Your task to perform on an android device: Open ESPN.com Image 0: 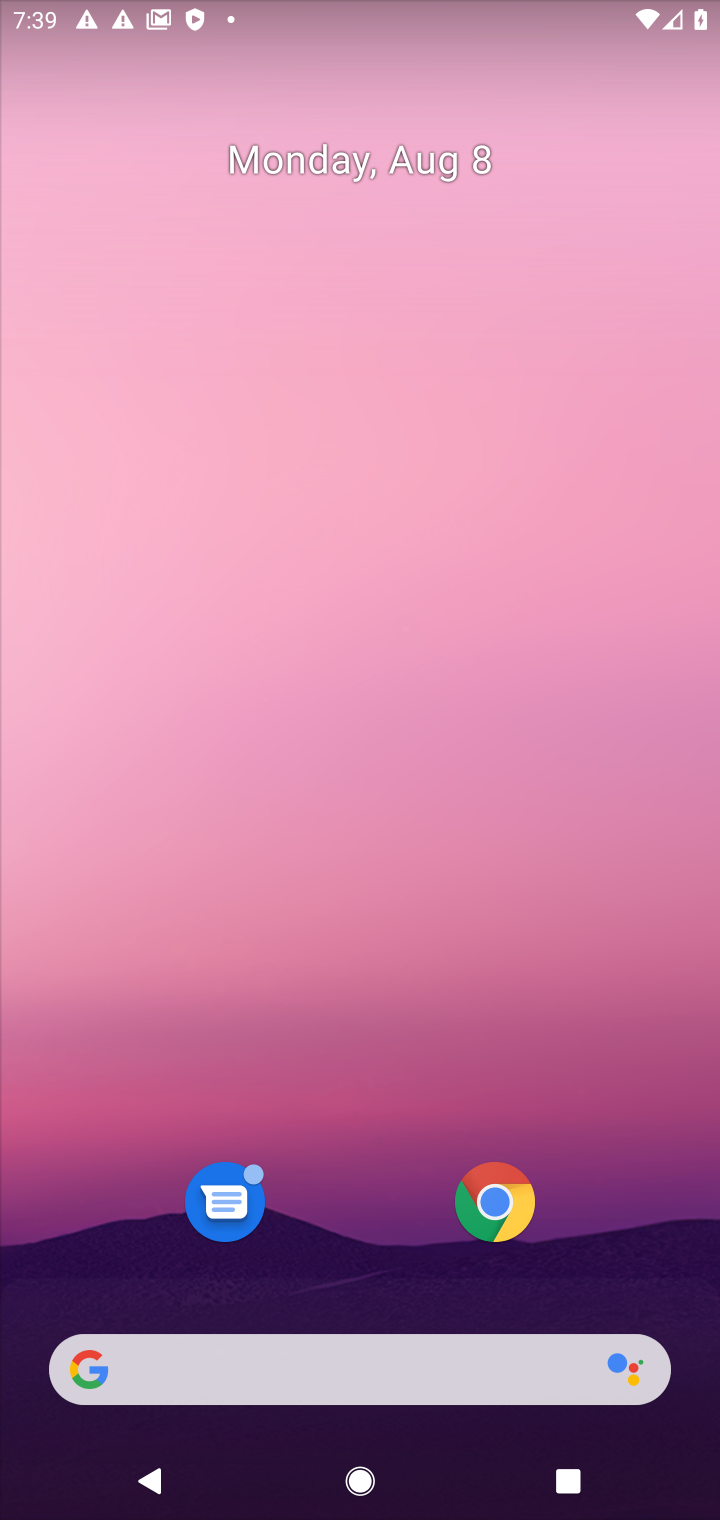
Step 0: drag from (380, 923) to (460, 5)
Your task to perform on an android device: Open ESPN.com Image 1: 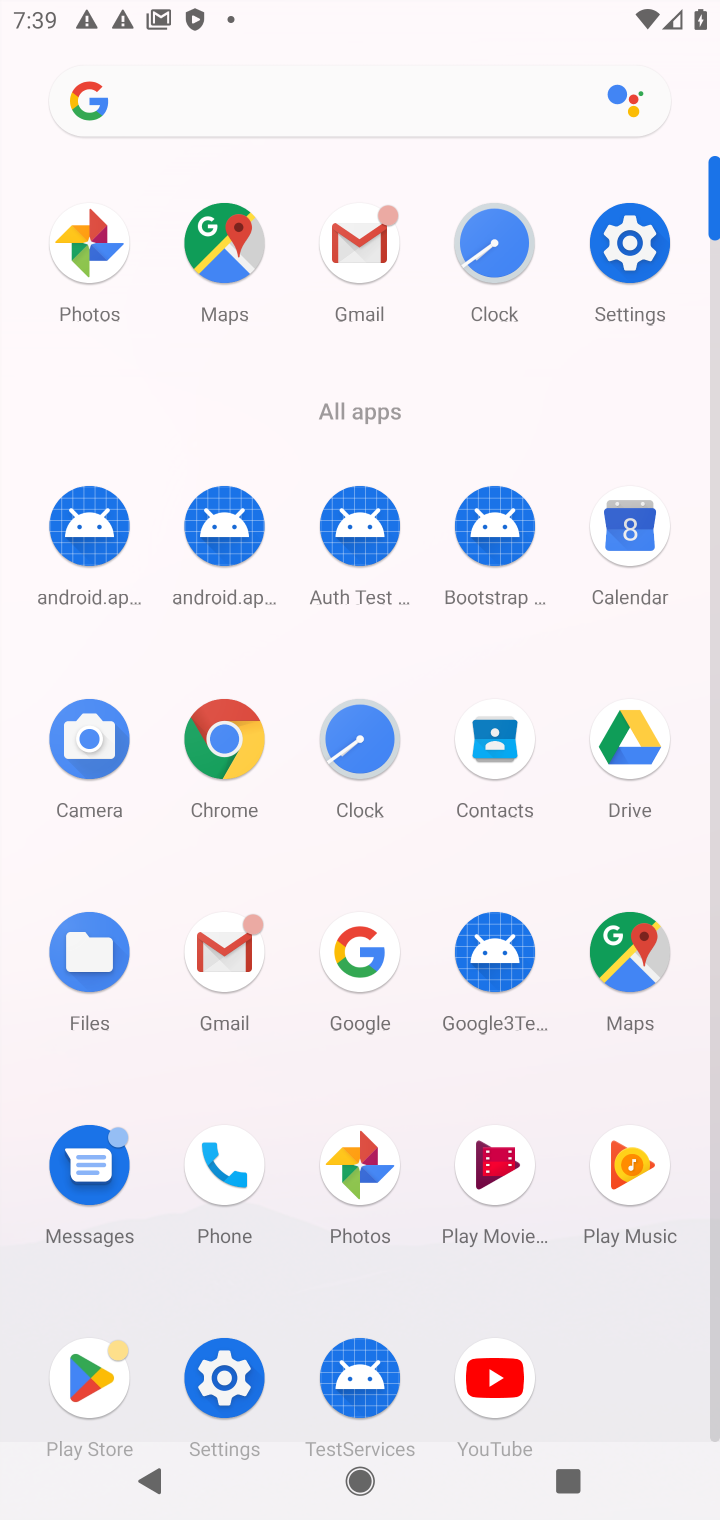
Step 1: click (228, 778)
Your task to perform on an android device: Open ESPN.com Image 2: 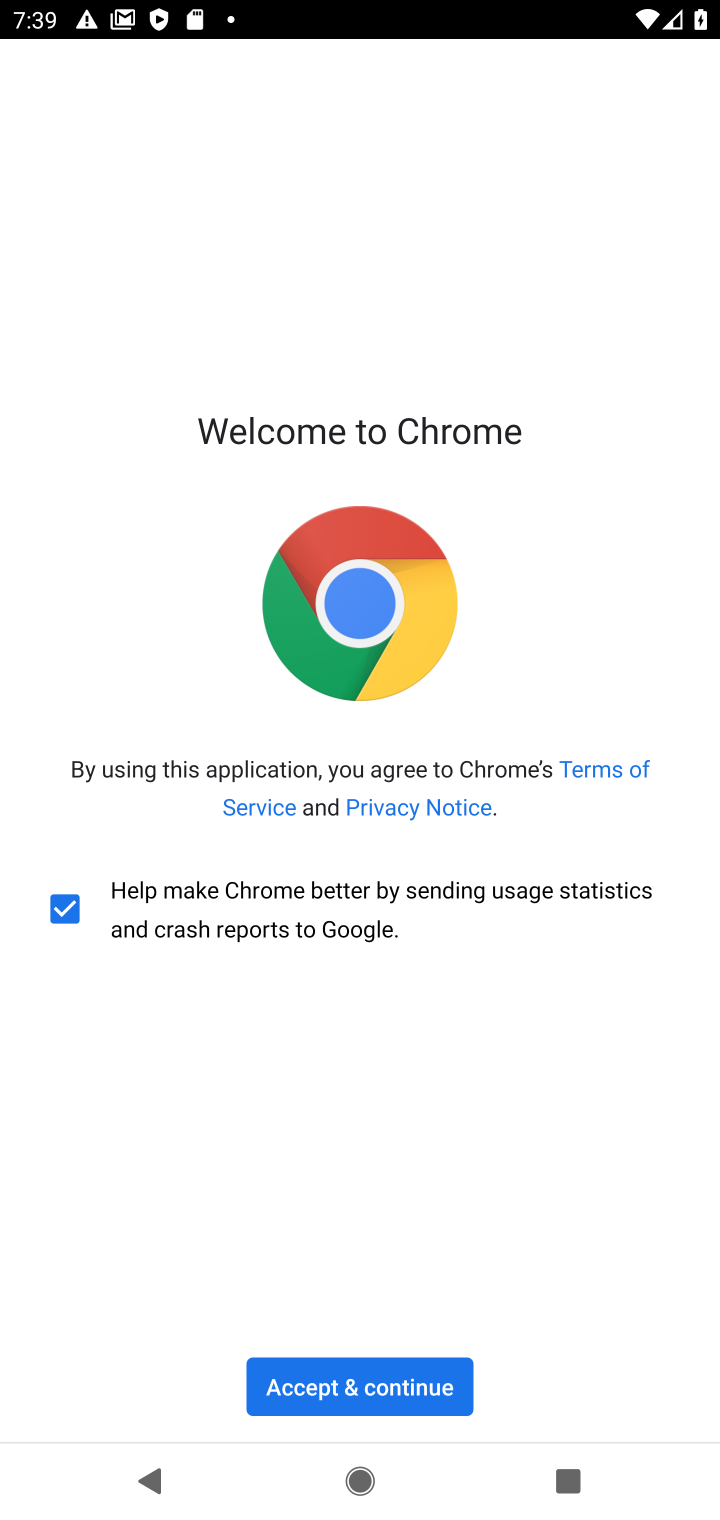
Step 2: click (410, 1386)
Your task to perform on an android device: Open ESPN.com Image 3: 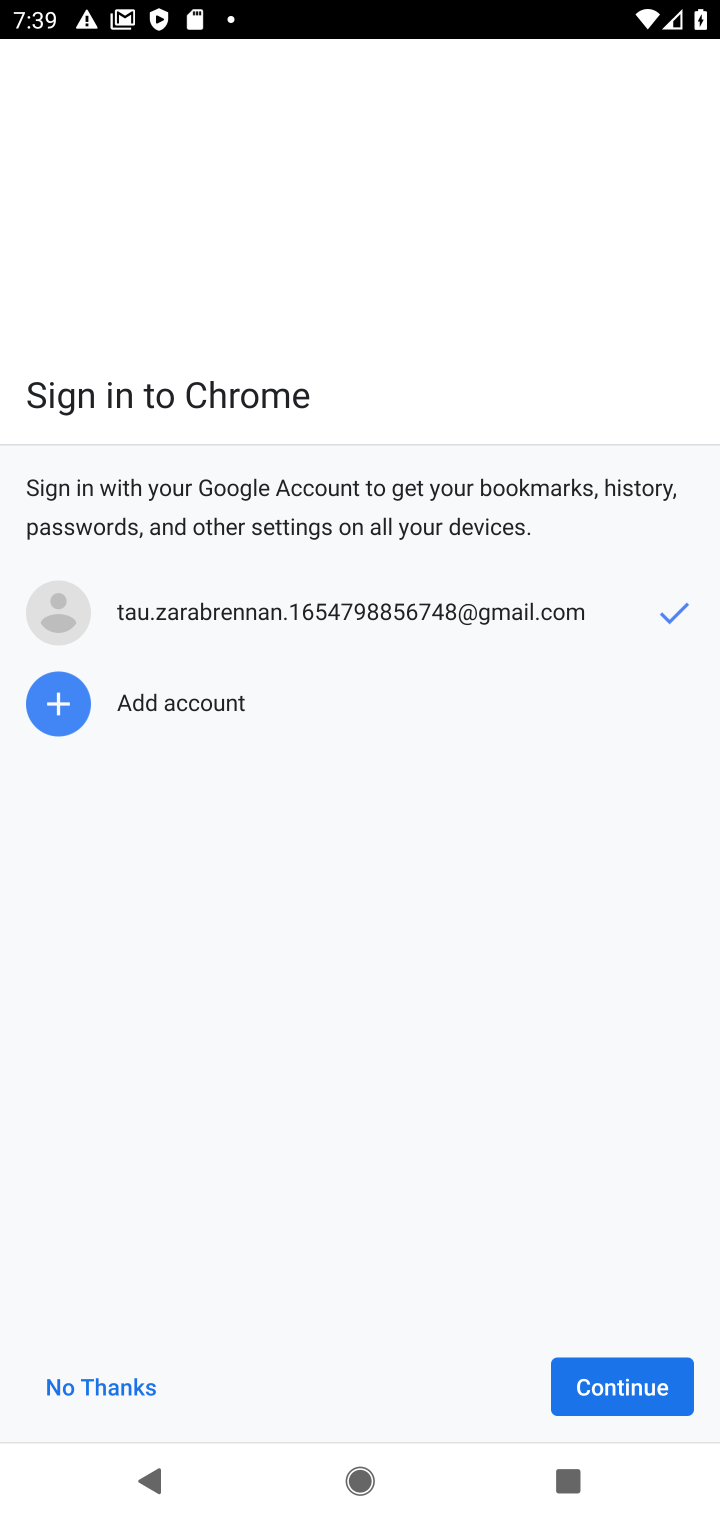
Step 3: click (637, 1399)
Your task to perform on an android device: Open ESPN.com Image 4: 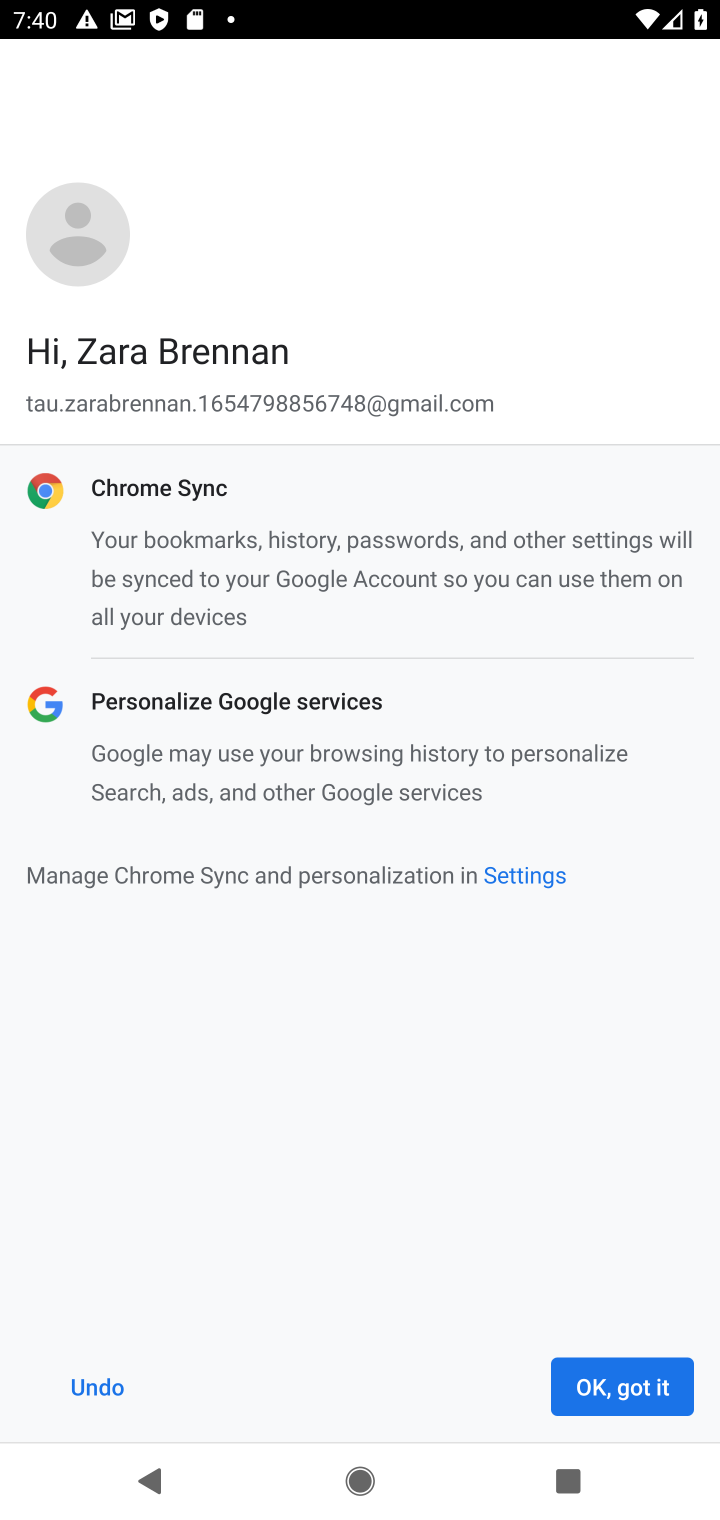
Step 4: click (625, 1381)
Your task to perform on an android device: Open ESPN.com Image 5: 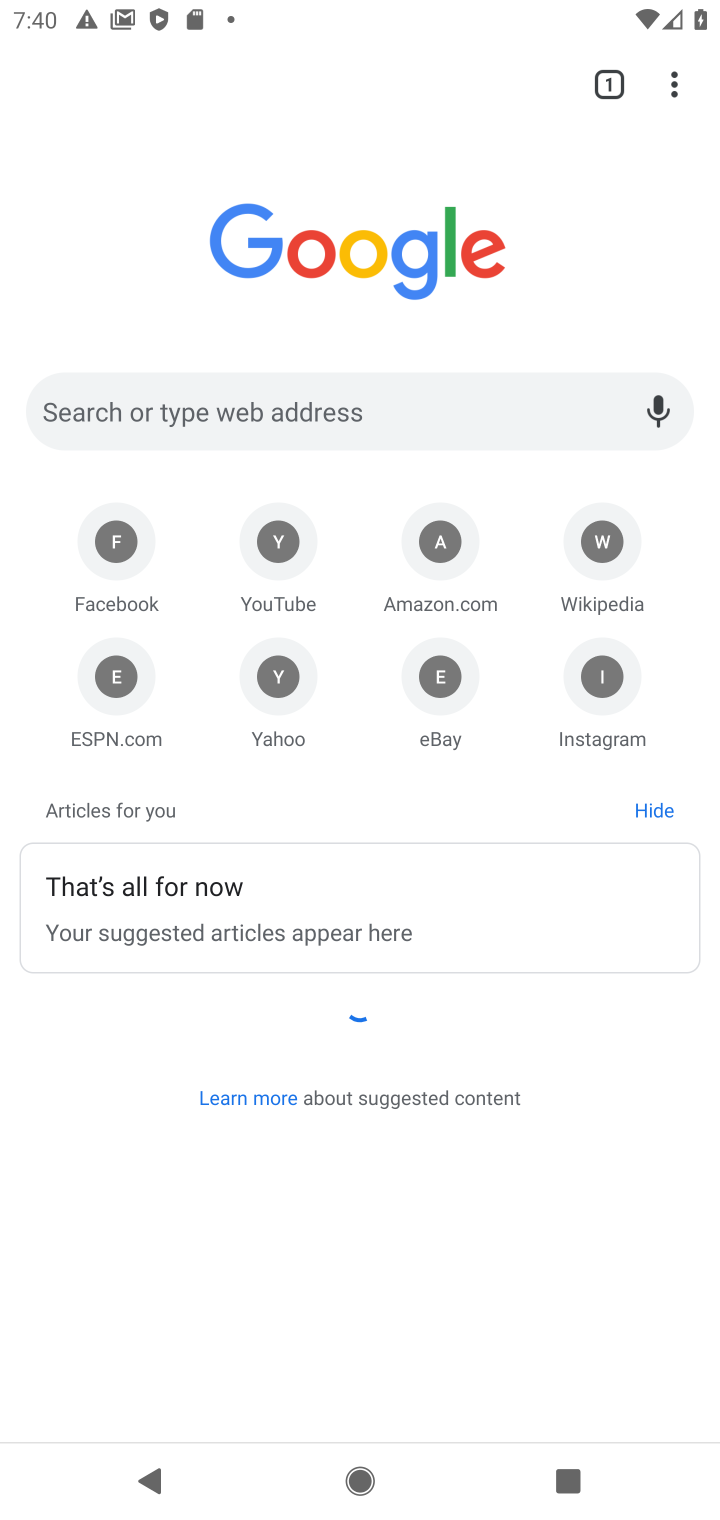
Step 5: click (102, 695)
Your task to perform on an android device: Open ESPN.com Image 6: 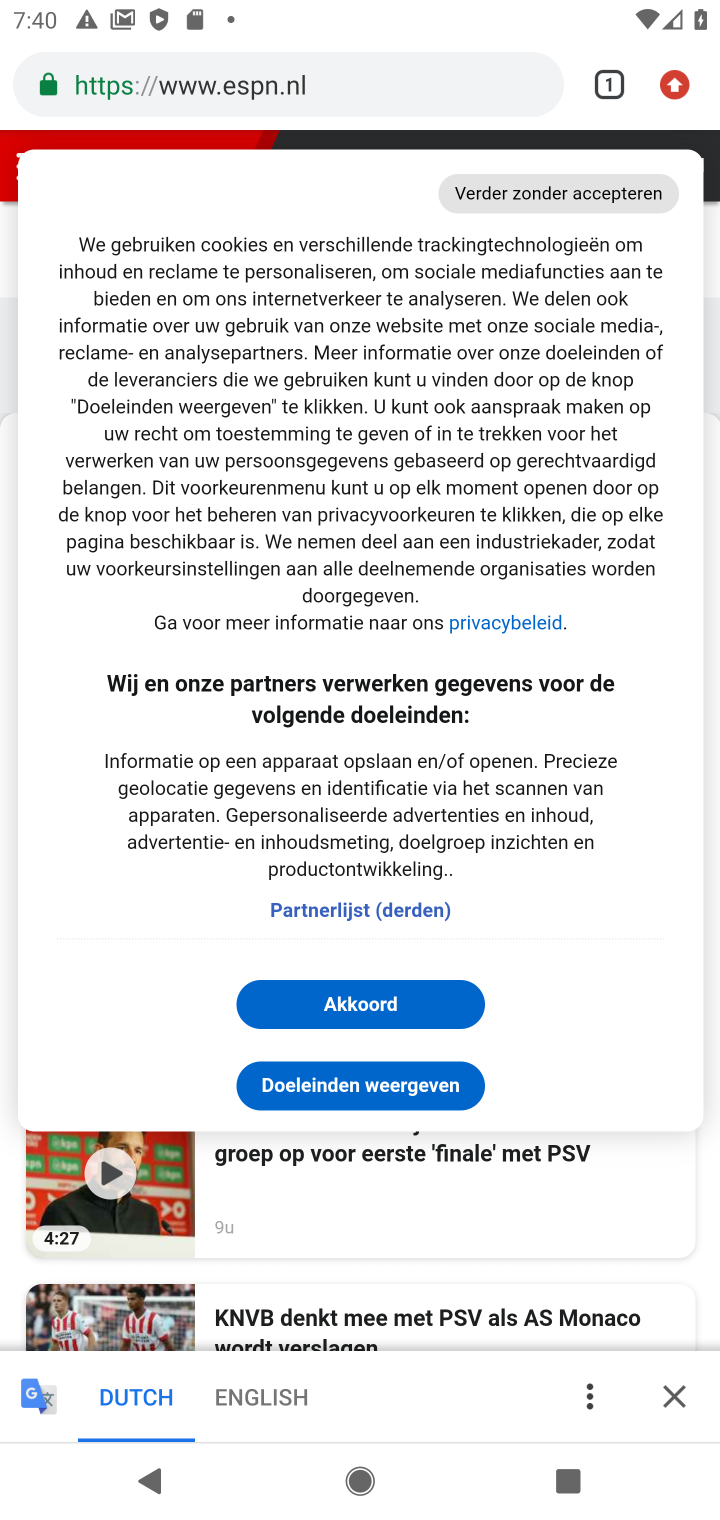
Step 6: task complete